Your task to perform on an android device: open chrome privacy settings Image 0: 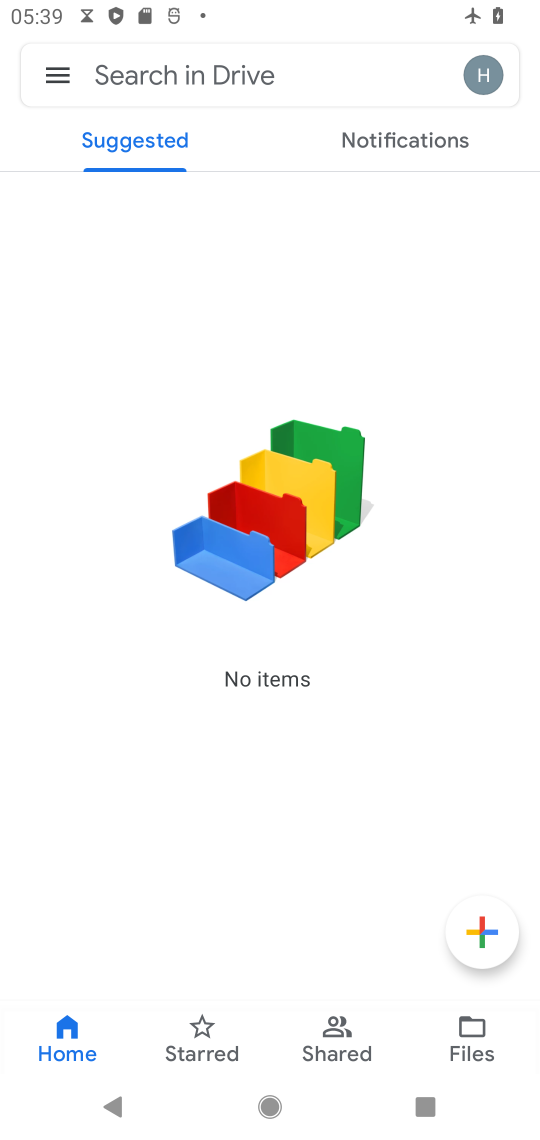
Step 0: press home button
Your task to perform on an android device: open chrome privacy settings Image 1: 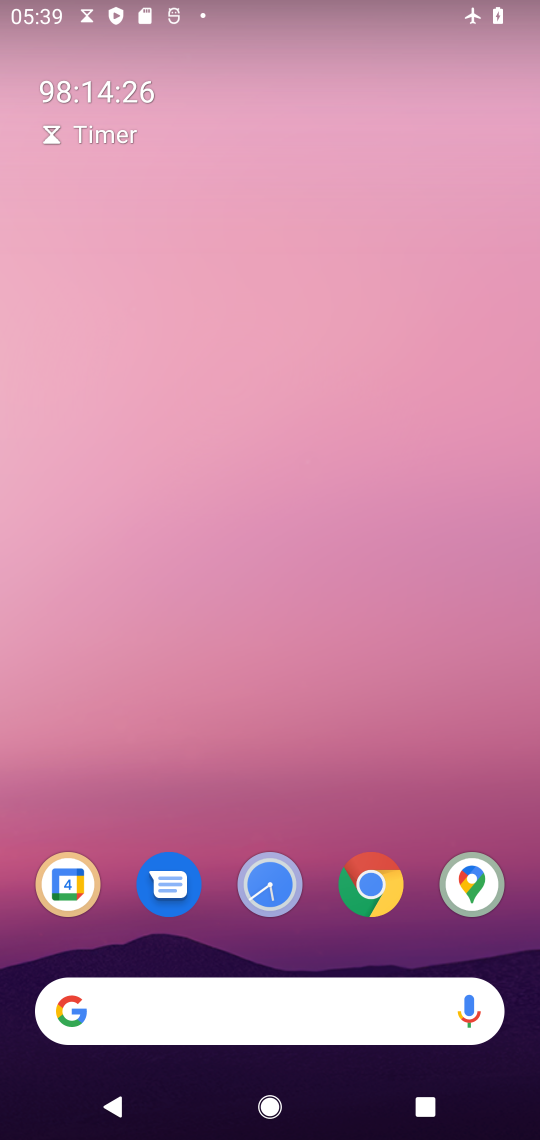
Step 1: click (385, 868)
Your task to perform on an android device: open chrome privacy settings Image 2: 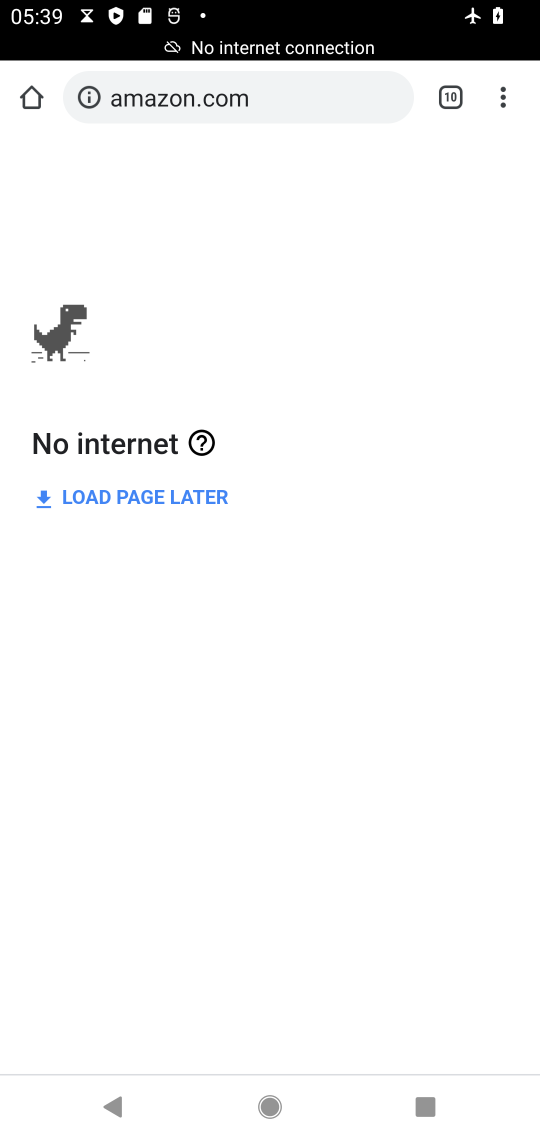
Step 2: click (510, 81)
Your task to perform on an android device: open chrome privacy settings Image 3: 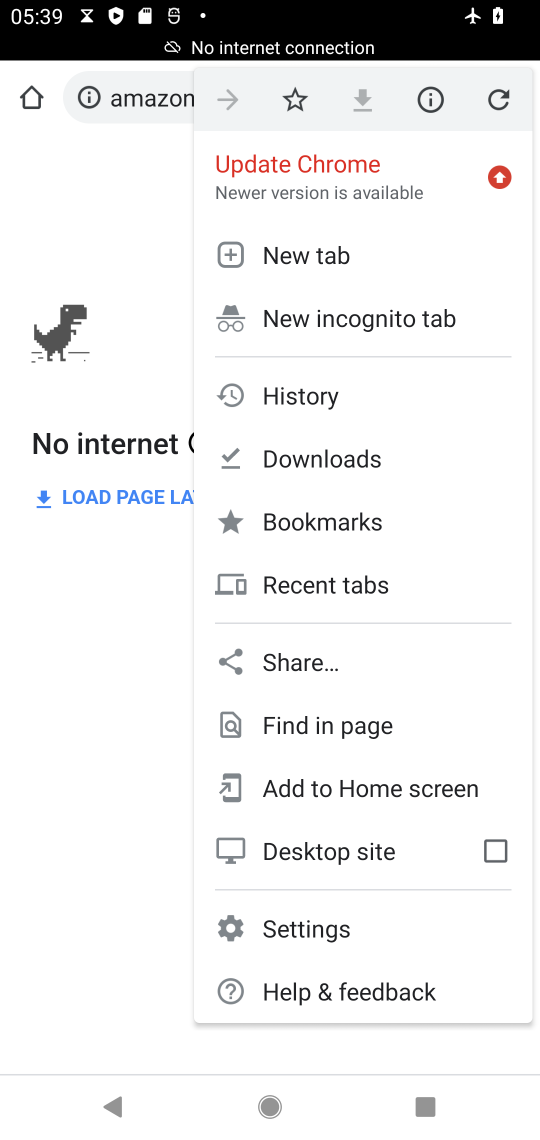
Step 3: click (329, 933)
Your task to perform on an android device: open chrome privacy settings Image 4: 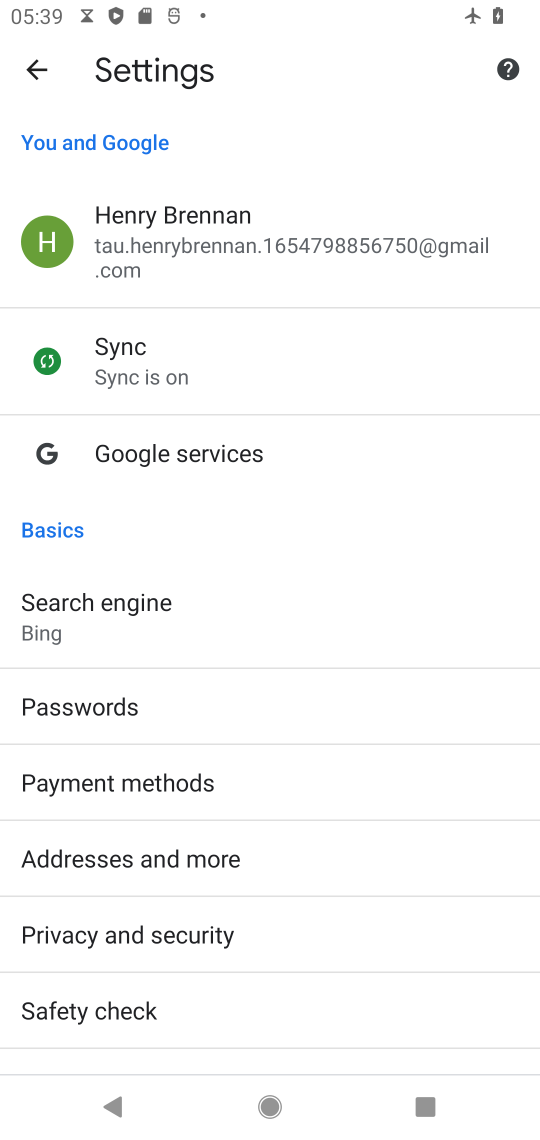
Step 4: drag from (184, 1013) to (301, 407)
Your task to perform on an android device: open chrome privacy settings Image 5: 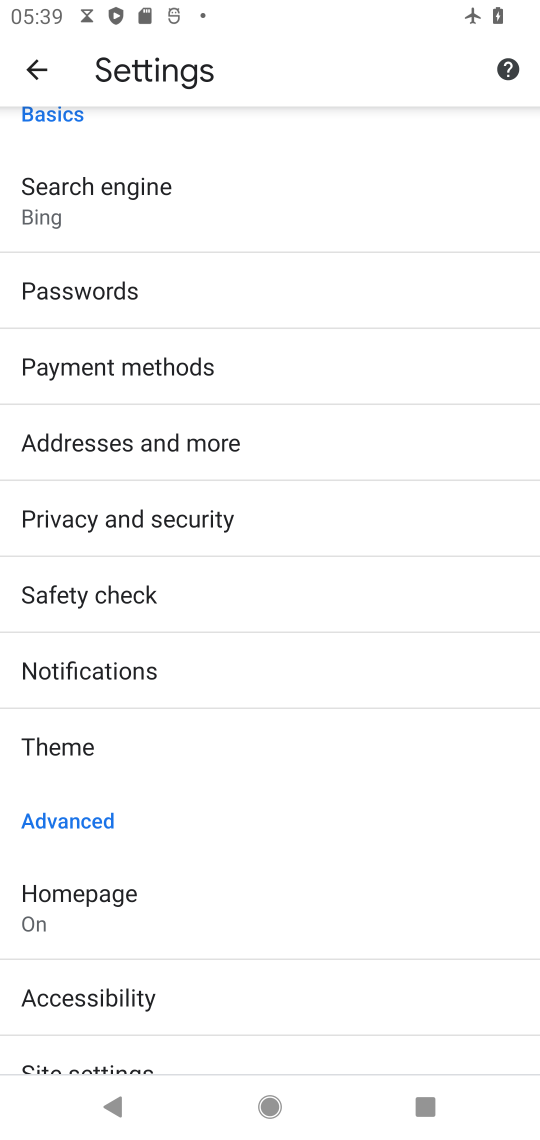
Step 5: drag from (153, 951) to (303, 482)
Your task to perform on an android device: open chrome privacy settings Image 6: 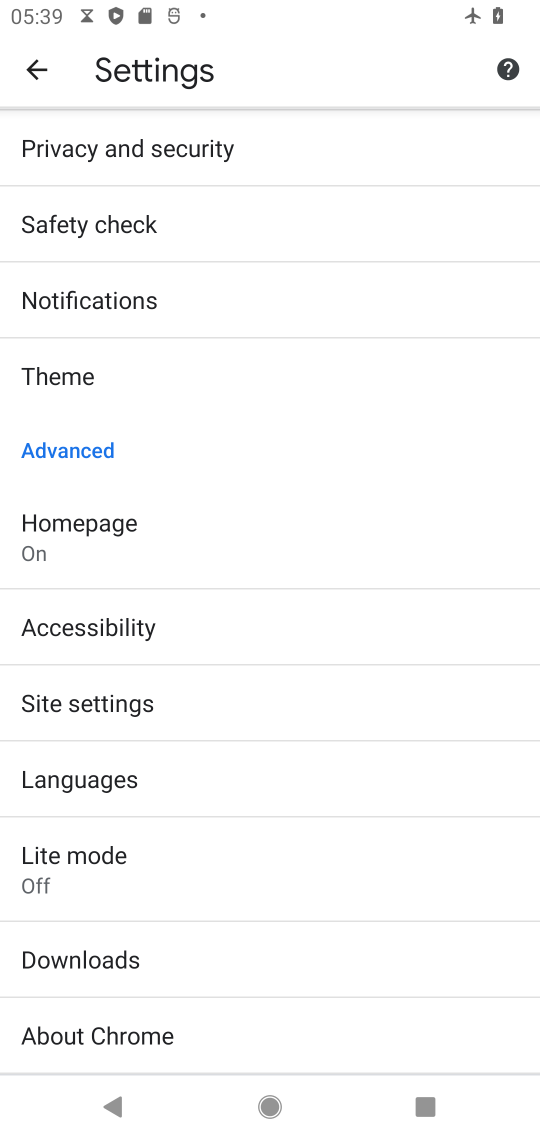
Step 6: drag from (259, 282) to (249, 506)
Your task to perform on an android device: open chrome privacy settings Image 7: 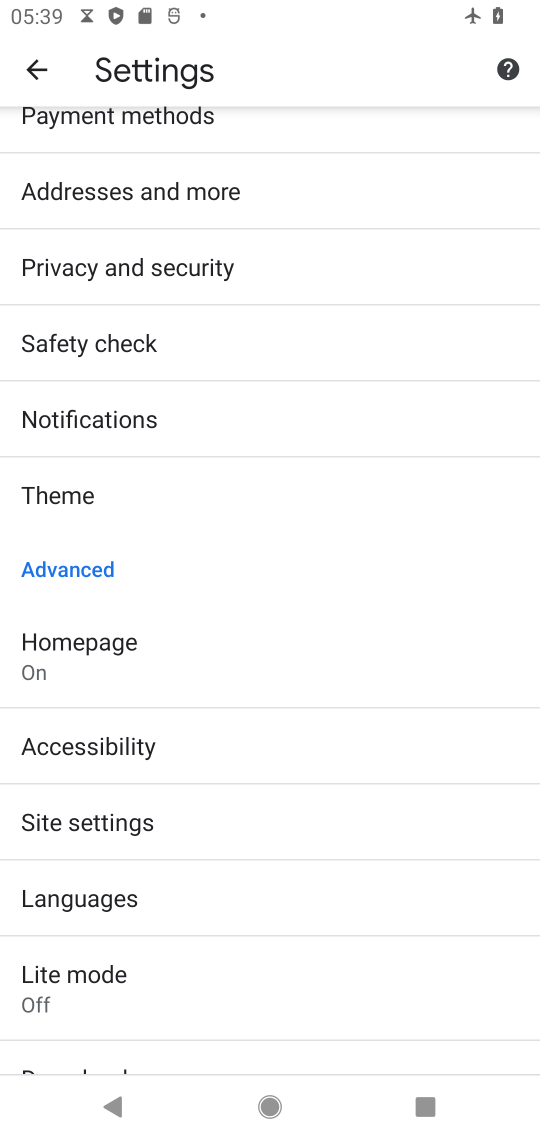
Step 7: click (216, 271)
Your task to perform on an android device: open chrome privacy settings Image 8: 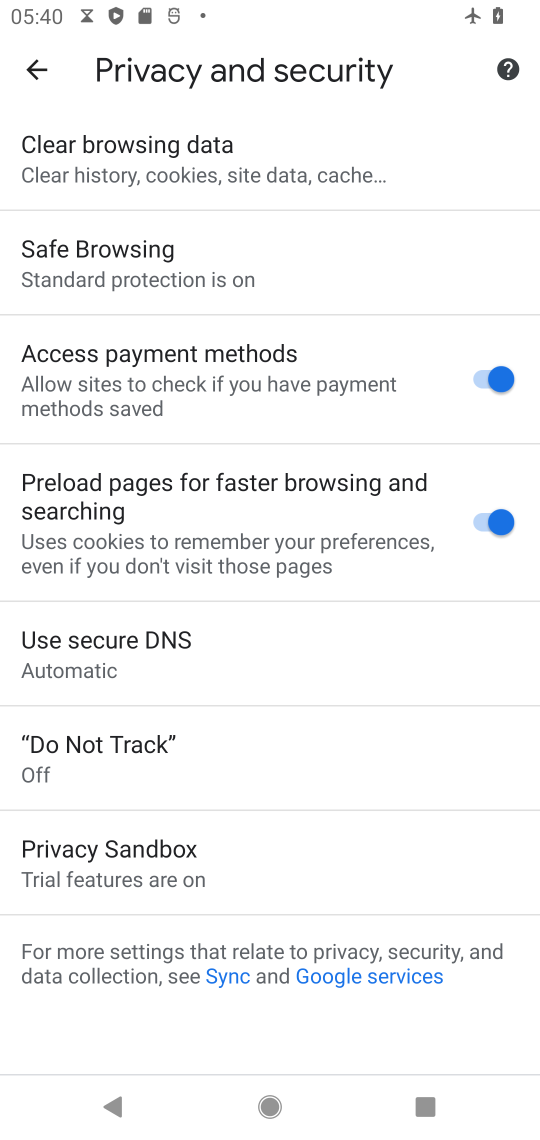
Step 8: task complete